Your task to perform on an android device: Check the news Image 0: 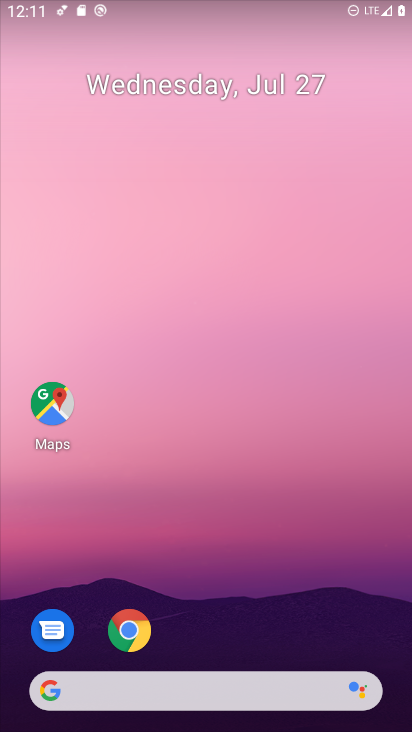
Step 0: drag from (1, 305) to (394, 311)
Your task to perform on an android device: Check the news Image 1: 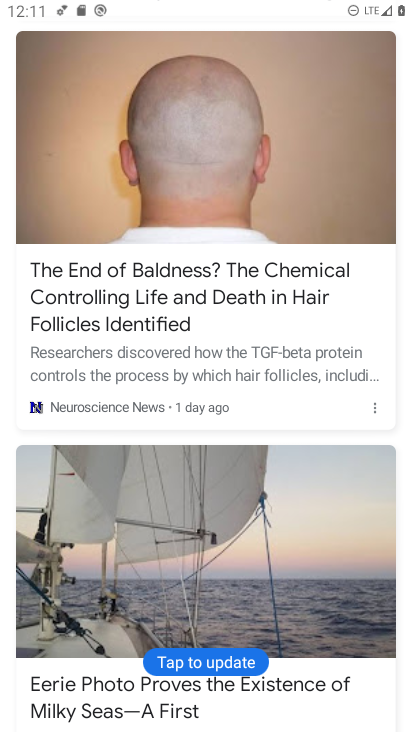
Step 1: task complete